Your task to perform on an android device: Go to battery settings Image 0: 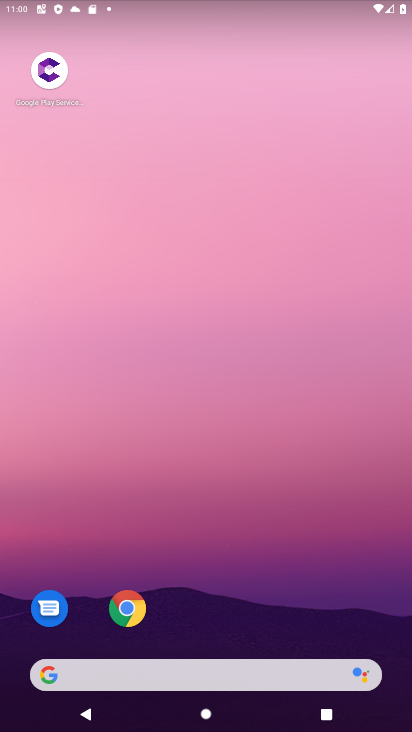
Step 0: drag from (303, 501) to (273, 43)
Your task to perform on an android device: Go to battery settings Image 1: 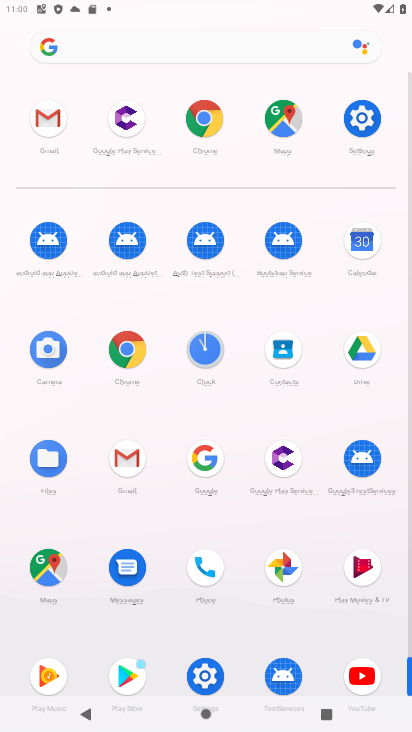
Step 1: drag from (4, 594) to (2, 216)
Your task to perform on an android device: Go to battery settings Image 2: 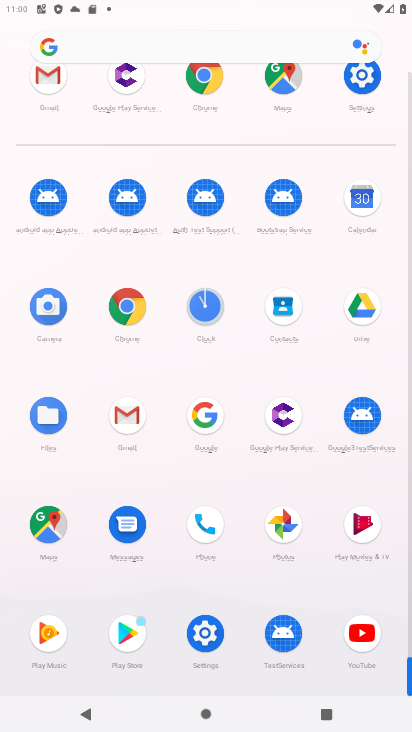
Step 2: click (203, 630)
Your task to perform on an android device: Go to battery settings Image 3: 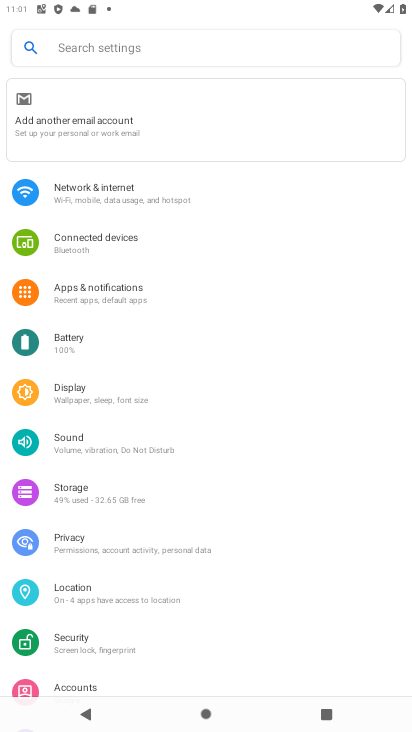
Step 3: click (95, 338)
Your task to perform on an android device: Go to battery settings Image 4: 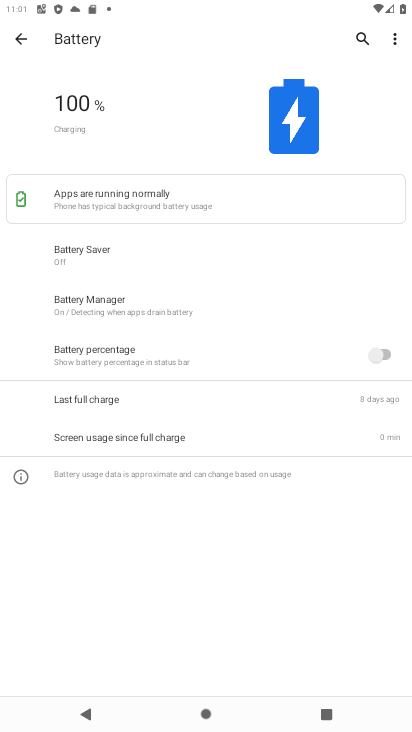
Step 4: task complete